Your task to perform on an android device: What does the iPhone 8 look like? Image 0: 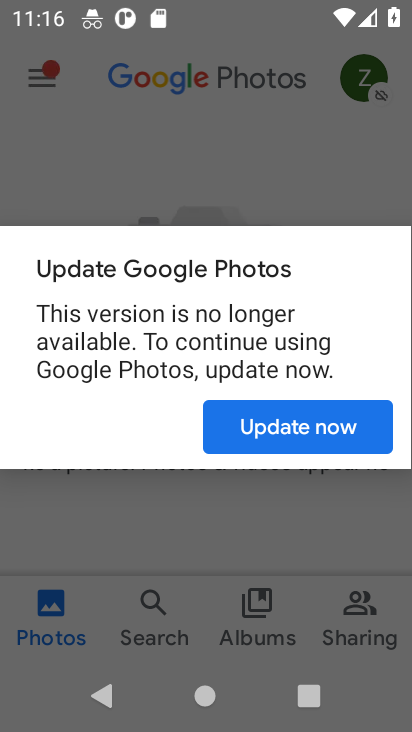
Step 0: press home button
Your task to perform on an android device: What does the iPhone 8 look like? Image 1: 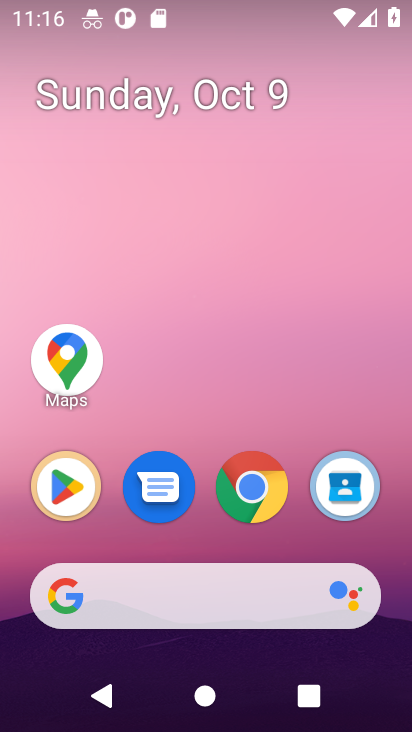
Step 1: click (251, 491)
Your task to perform on an android device: What does the iPhone 8 look like? Image 2: 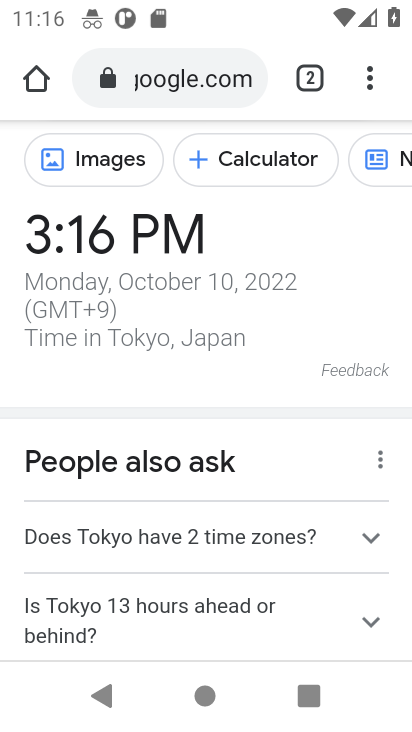
Step 2: click (197, 92)
Your task to perform on an android device: What does the iPhone 8 look like? Image 3: 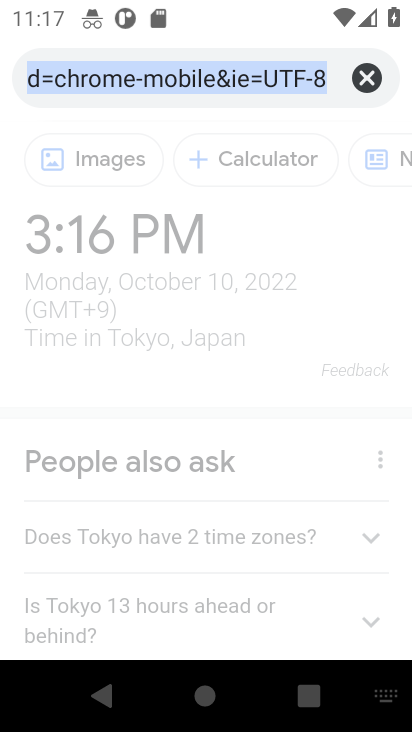
Step 3: type "what does iphone 8 look like?"
Your task to perform on an android device: What does the iPhone 8 look like? Image 4: 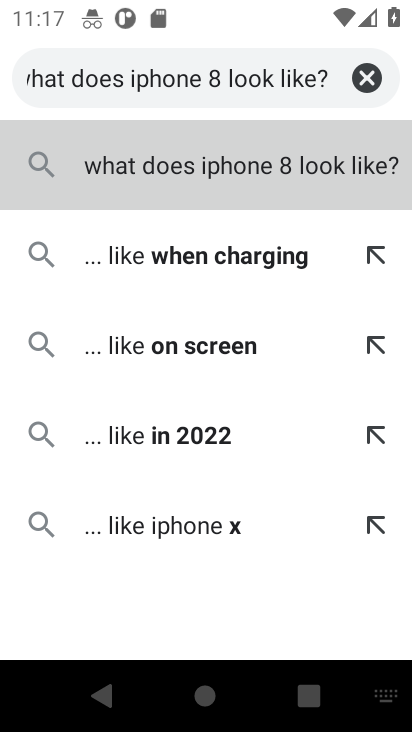
Step 4: press enter
Your task to perform on an android device: What does the iPhone 8 look like? Image 5: 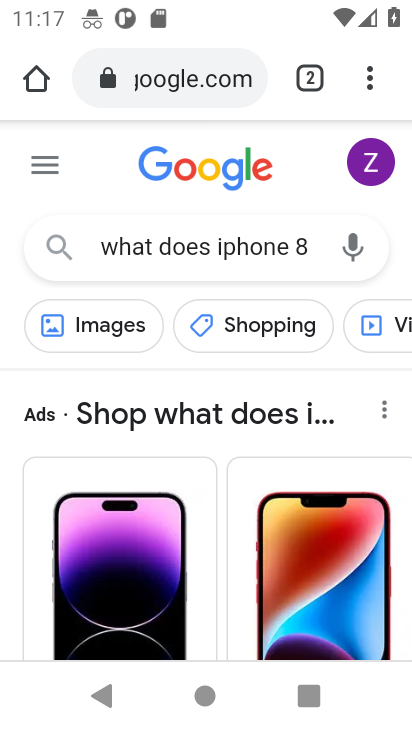
Step 5: task complete